Your task to perform on an android device: Open calendar and show me the third week of next month Image 0: 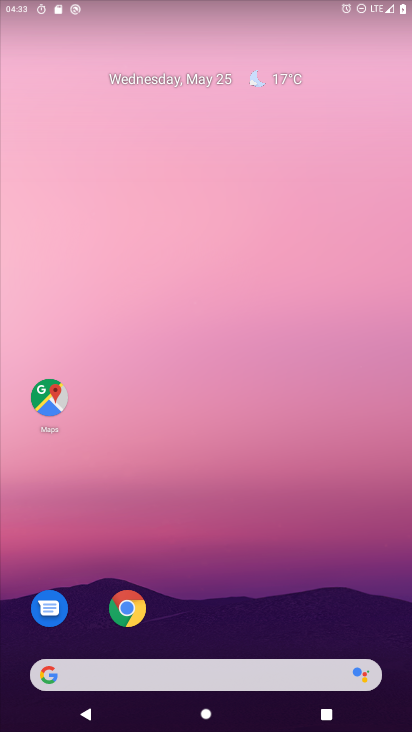
Step 0: drag from (232, 507) to (141, 125)
Your task to perform on an android device: Open calendar and show me the third week of next month Image 1: 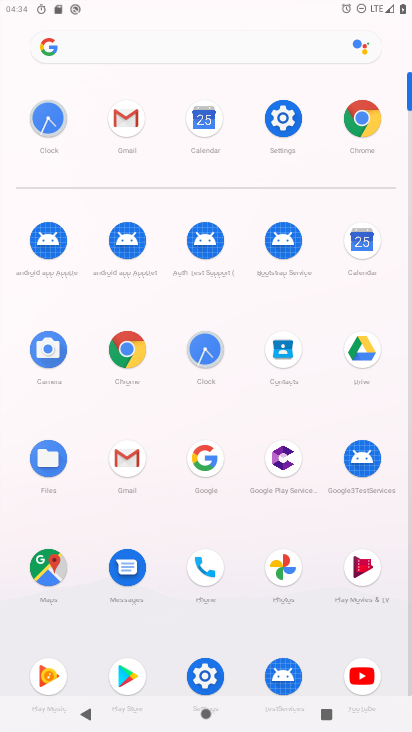
Step 1: click (360, 244)
Your task to perform on an android device: Open calendar and show me the third week of next month Image 2: 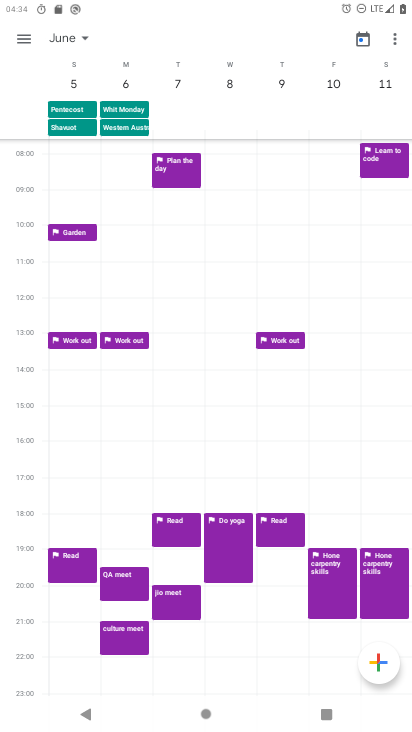
Step 2: click (67, 40)
Your task to perform on an android device: Open calendar and show me the third week of next month Image 3: 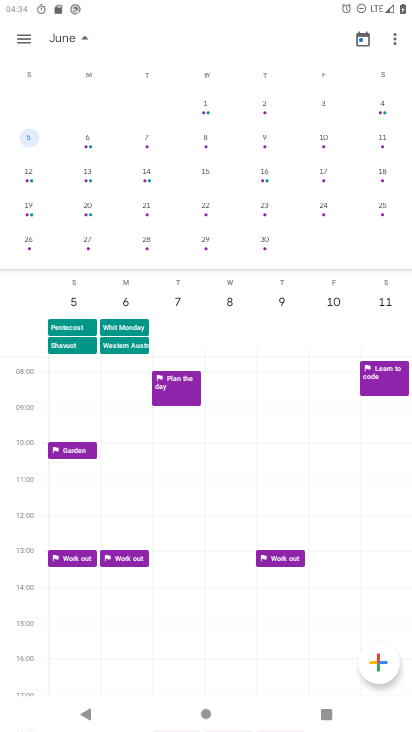
Step 3: drag from (344, 195) to (295, 161)
Your task to perform on an android device: Open calendar and show me the third week of next month Image 4: 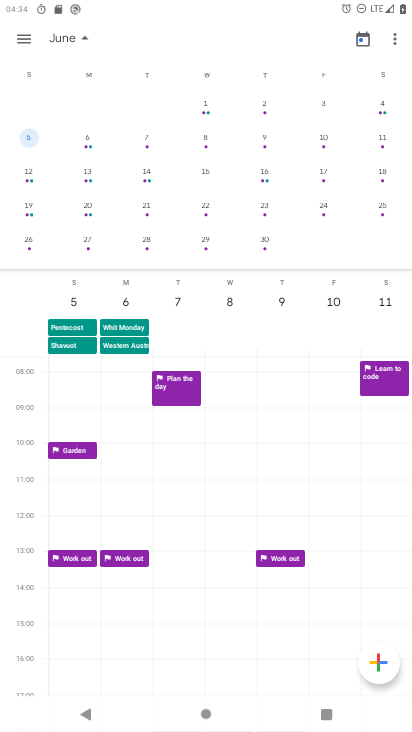
Step 4: click (27, 210)
Your task to perform on an android device: Open calendar and show me the third week of next month Image 5: 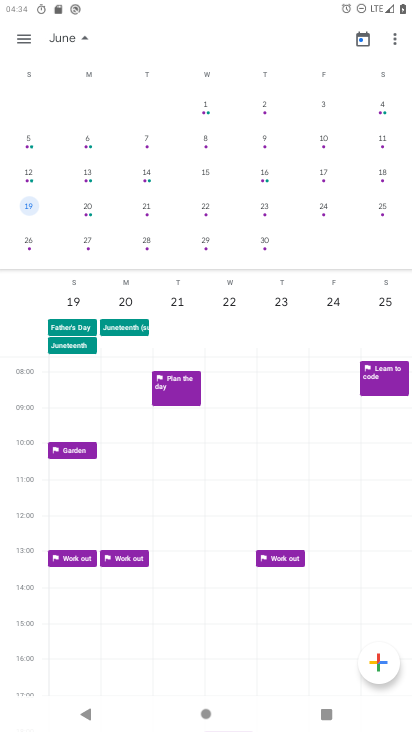
Step 5: task complete